Your task to perform on an android device: Open Maps and search for coffee Image 0: 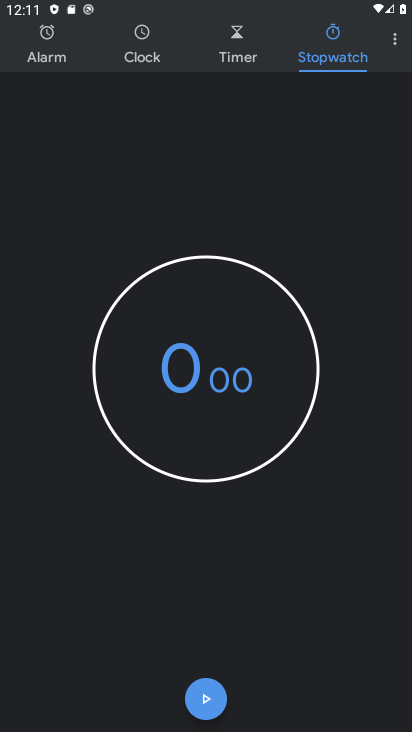
Step 0: press home button
Your task to perform on an android device: Open Maps and search for coffee Image 1: 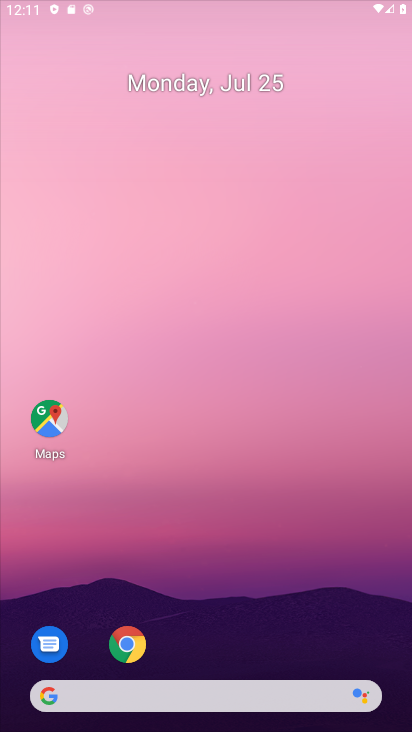
Step 1: drag from (359, 679) to (162, 73)
Your task to perform on an android device: Open Maps and search for coffee Image 2: 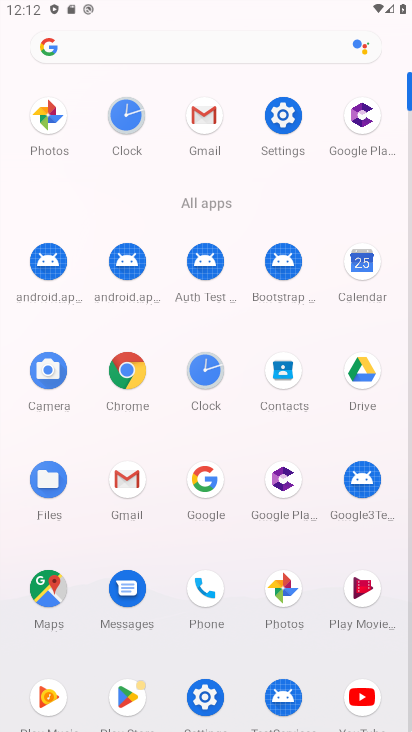
Step 2: click (47, 589)
Your task to perform on an android device: Open Maps and search for coffee Image 3: 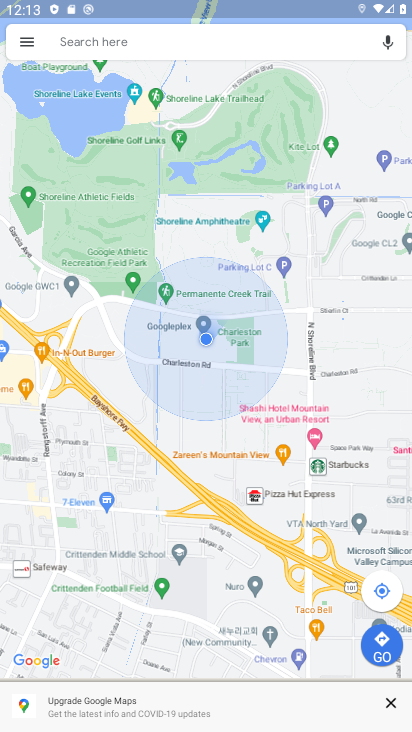
Step 3: click (97, 38)
Your task to perform on an android device: Open Maps and search for coffee Image 4: 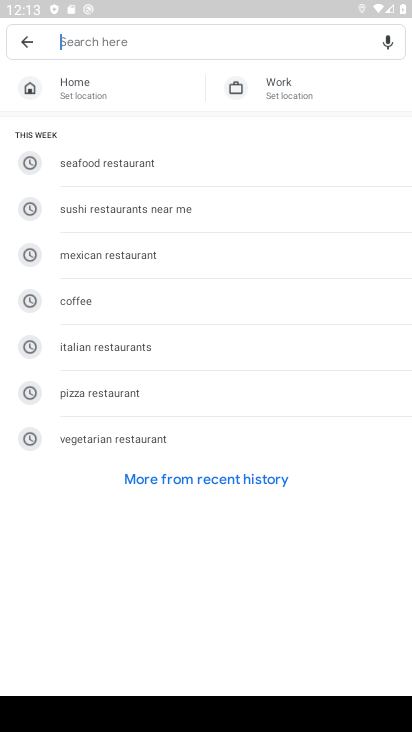
Step 4: click (105, 301)
Your task to perform on an android device: Open Maps and search for coffee Image 5: 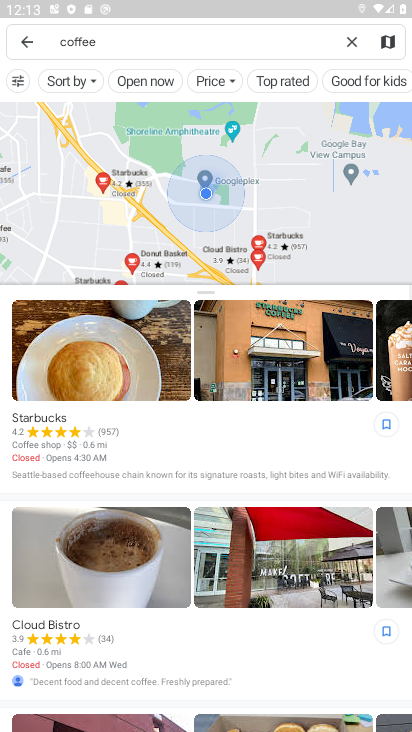
Step 5: task complete